Your task to perform on an android device: move an email to a new category in the gmail app Image 0: 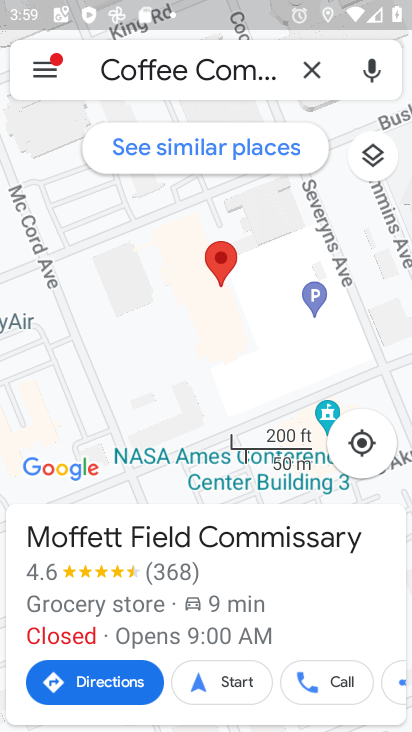
Step 0: press home button
Your task to perform on an android device: move an email to a new category in the gmail app Image 1: 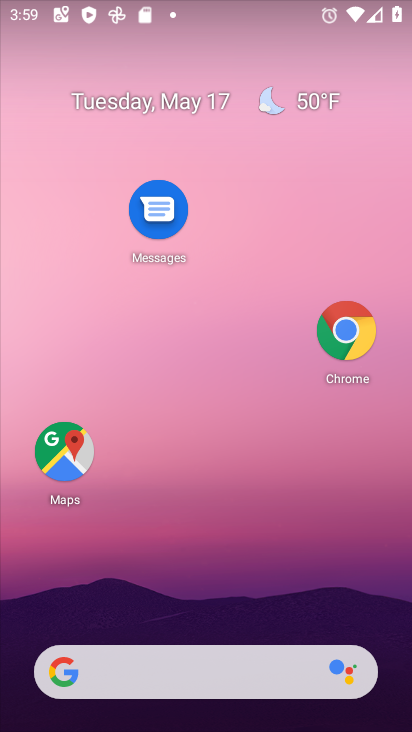
Step 1: drag from (269, 543) to (240, 18)
Your task to perform on an android device: move an email to a new category in the gmail app Image 2: 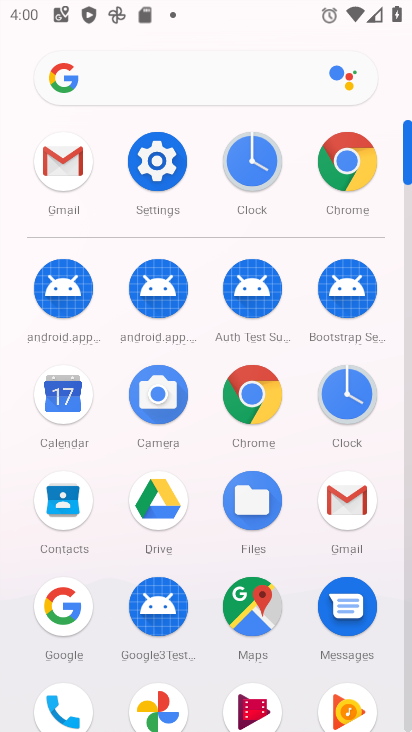
Step 2: click (72, 226)
Your task to perform on an android device: move an email to a new category in the gmail app Image 3: 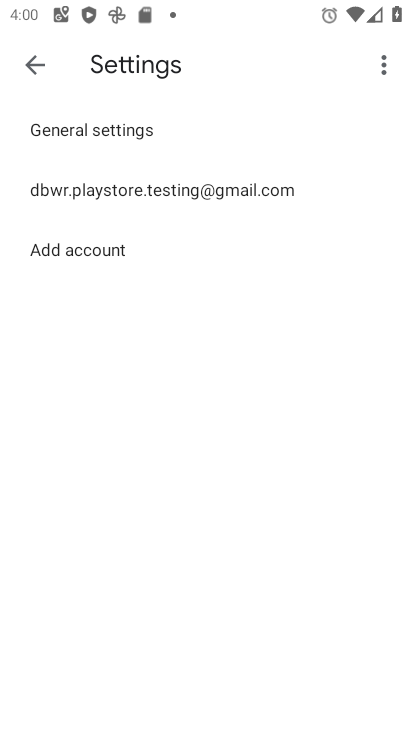
Step 3: click (29, 67)
Your task to perform on an android device: move an email to a new category in the gmail app Image 4: 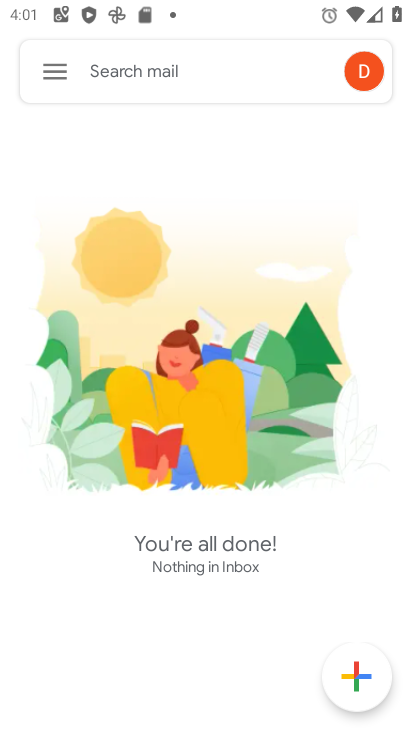
Step 4: click (41, 87)
Your task to perform on an android device: move an email to a new category in the gmail app Image 5: 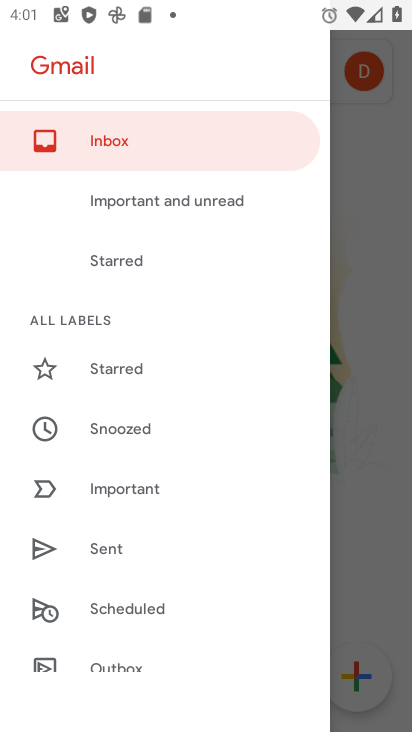
Step 5: task complete